Your task to perform on an android device: turn off notifications in google photos Image 0: 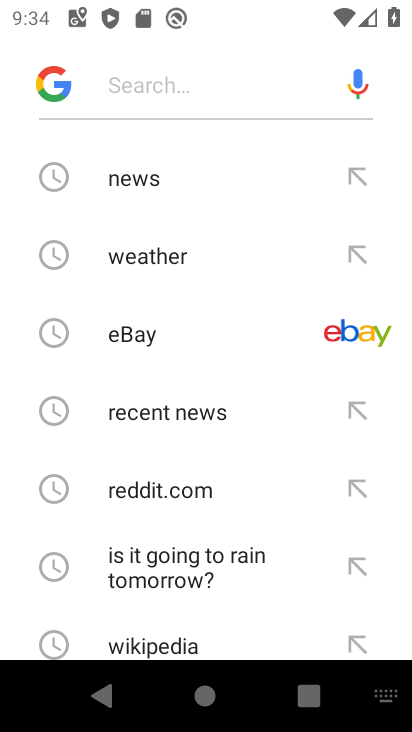
Step 0: press back button
Your task to perform on an android device: turn off notifications in google photos Image 1: 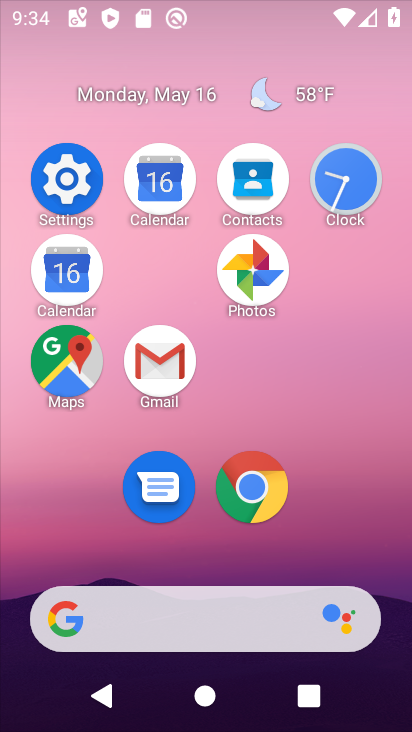
Step 1: click (240, 284)
Your task to perform on an android device: turn off notifications in google photos Image 2: 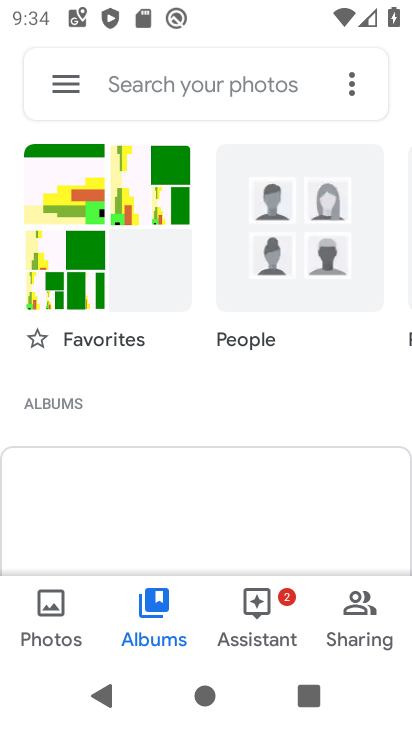
Step 2: click (38, 84)
Your task to perform on an android device: turn off notifications in google photos Image 3: 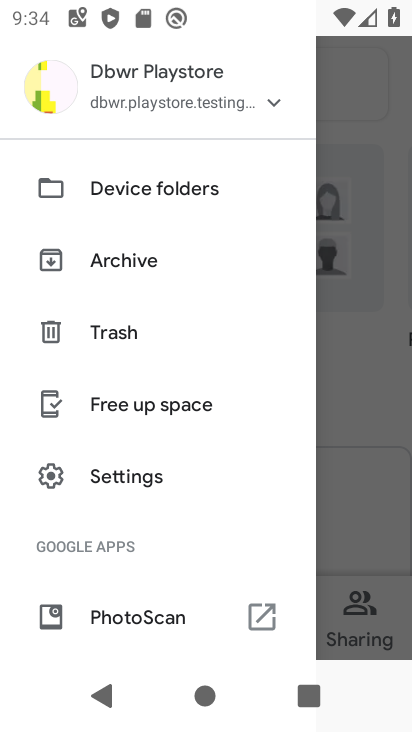
Step 3: drag from (193, 461) to (176, 178)
Your task to perform on an android device: turn off notifications in google photos Image 4: 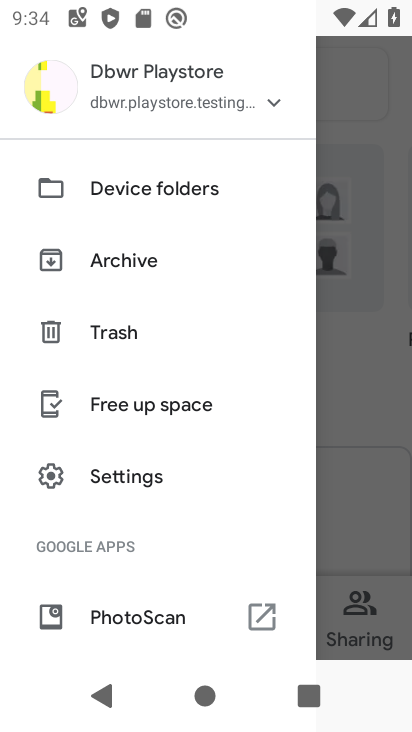
Step 4: click (159, 459)
Your task to perform on an android device: turn off notifications in google photos Image 5: 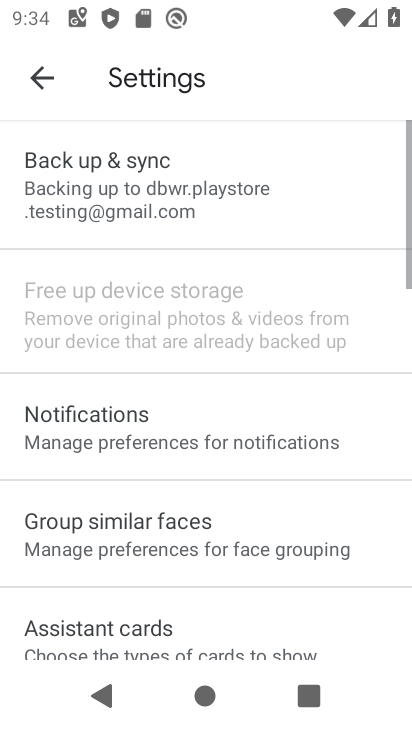
Step 5: drag from (159, 442) to (170, 148)
Your task to perform on an android device: turn off notifications in google photos Image 6: 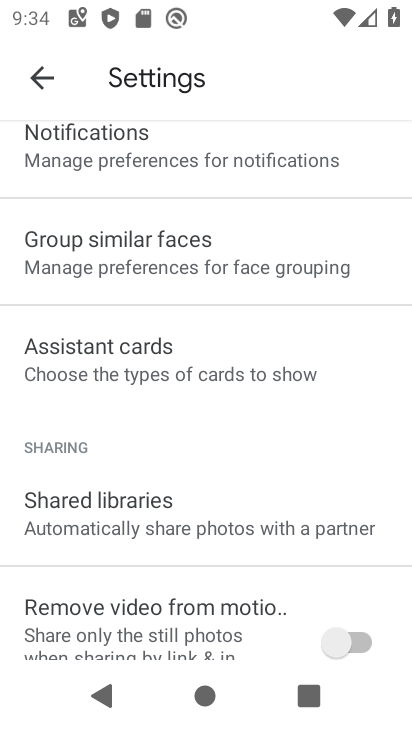
Step 6: click (175, 144)
Your task to perform on an android device: turn off notifications in google photos Image 7: 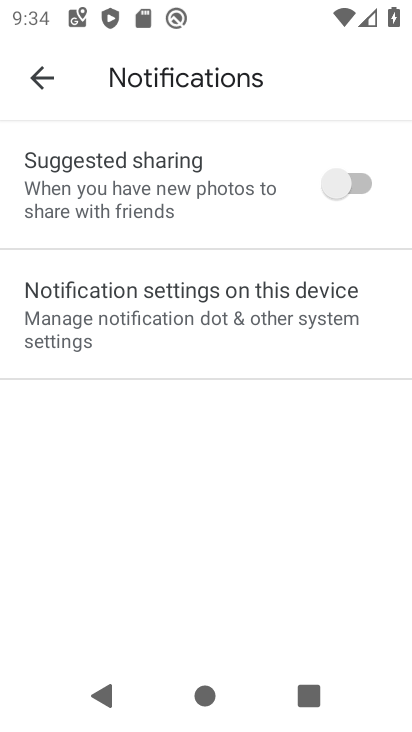
Step 7: click (225, 295)
Your task to perform on an android device: turn off notifications in google photos Image 8: 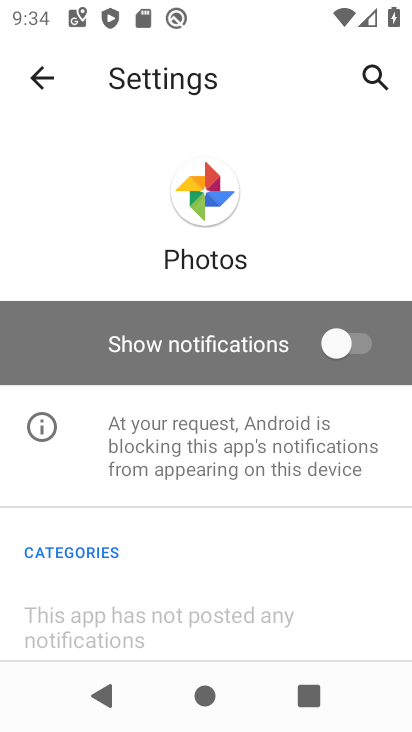
Step 8: task complete